Your task to perform on an android device: set an alarm Image 0: 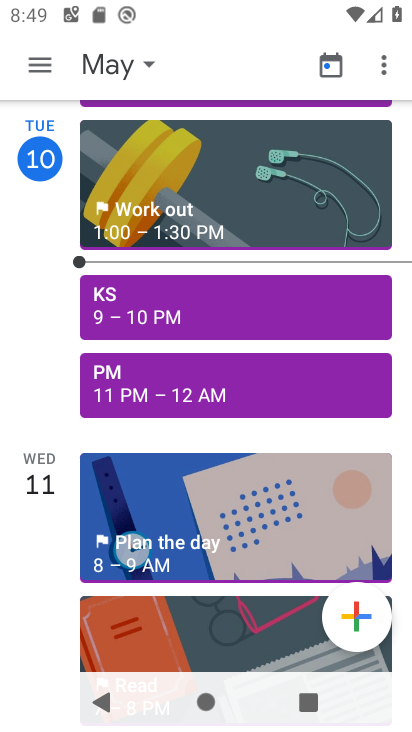
Step 0: press home button
Your task to perform on an android device: set an alarm Image 1: 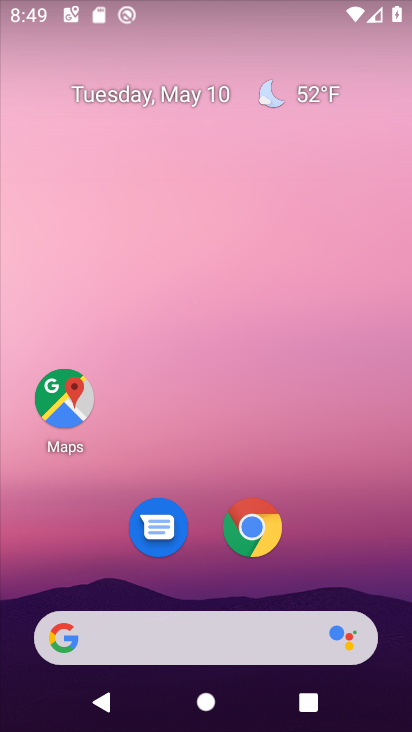
Step 1: drag from (315, 467) to (99, 95)
Your task to perform on an android device: set an alarm Image 2: 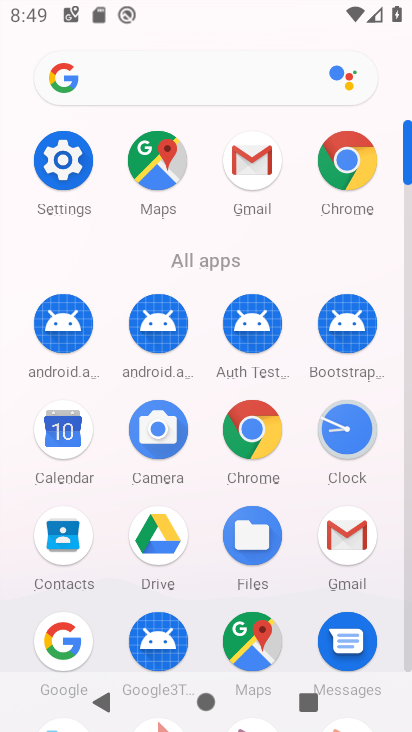
Step 2: click (346, 433)
Your task to perform on an android device: set an alarm Image 3: 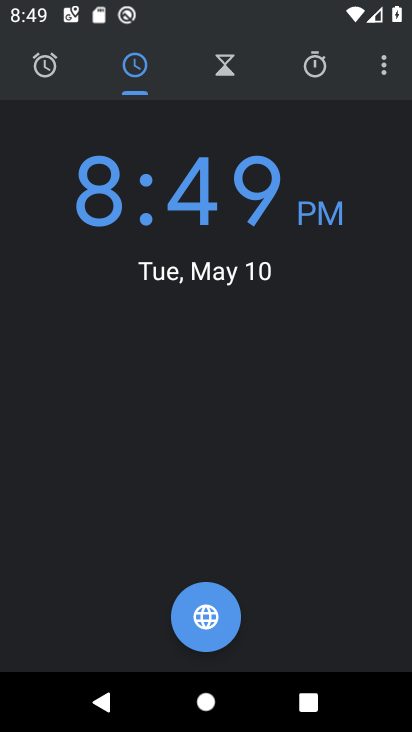
Step 3: click (41, 72)
Your task to perform on an android device: set an alarm Image 4: 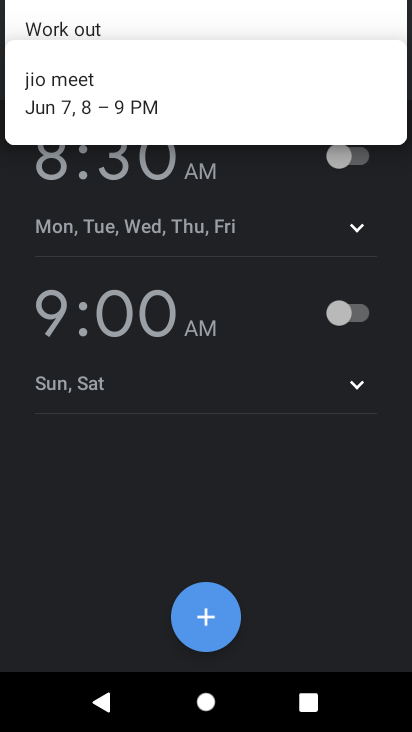
Step 4: click (338, 312)
Your task to perform on an android device: set an alarm Image 5: 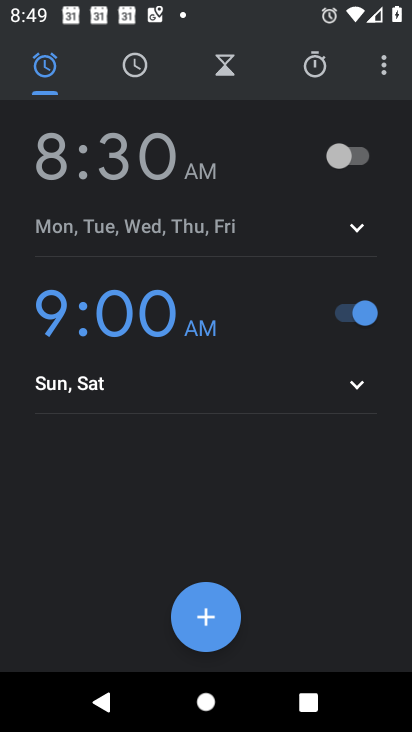
Step 5: task complete